Your task to perform on an android device: set default search engine in the chrome app Image 0: 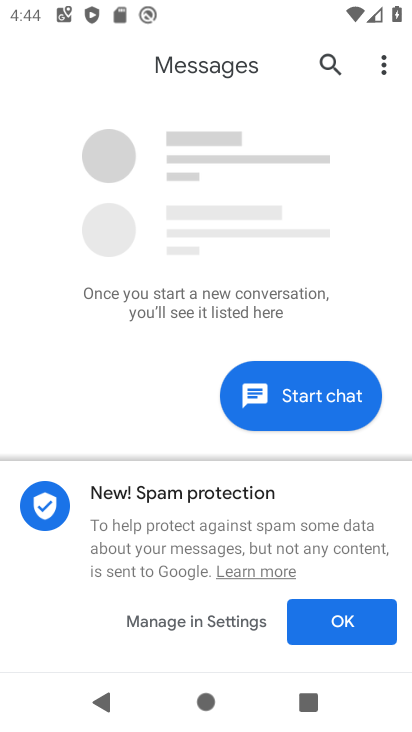
Step 0: press home button
Your task to perform on an android device: set default search engine in the chrome app Image 1: 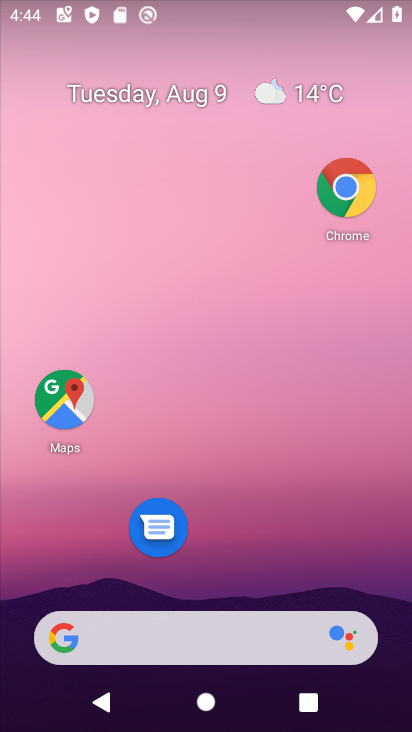
Step 1: click (348, 189)
Your task to perform on an android device: set default search engine in the chrome app Image 2: 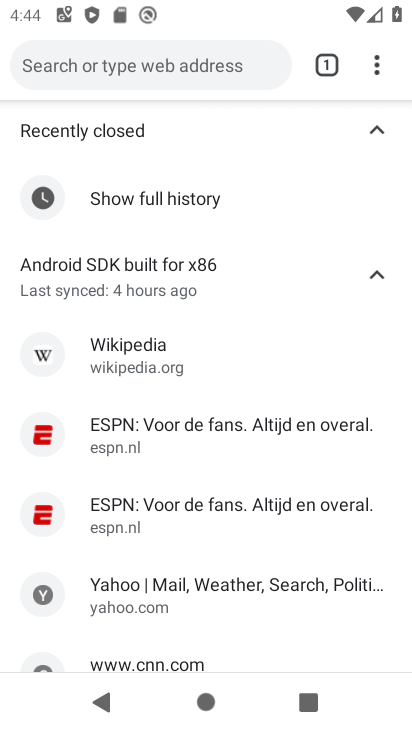
Step 2: click (392, 66)
Your task to perform on an android device: set default search engine in the chrome app Image 3: 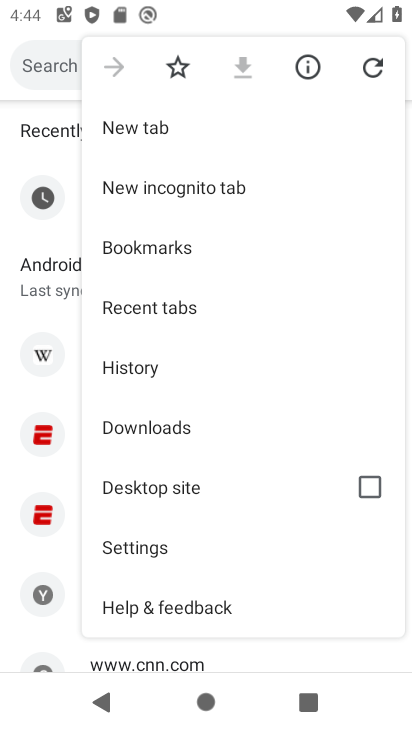
Step 3: click (164, 553)
Your task to perform on an android device: set default search engine in the chrome app Image 4: 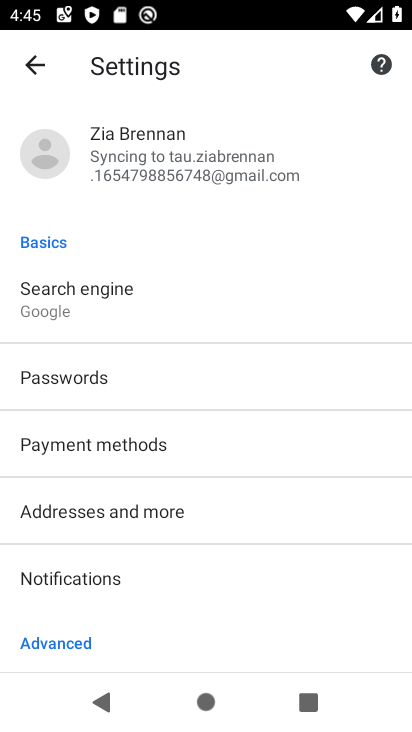
Step 4: click (178, 280)
Your task to perform on an android device: set default search engine in the chrome app Image 5: 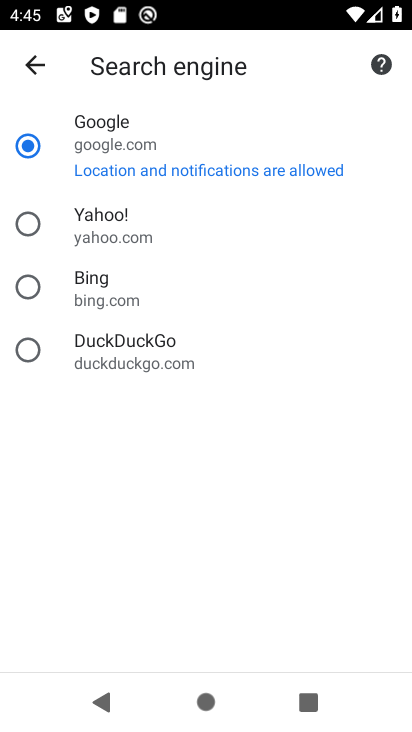
Step 5: click (168, 334)
Your task to perform on an android device: set default search engine in the chrome app Image 6: 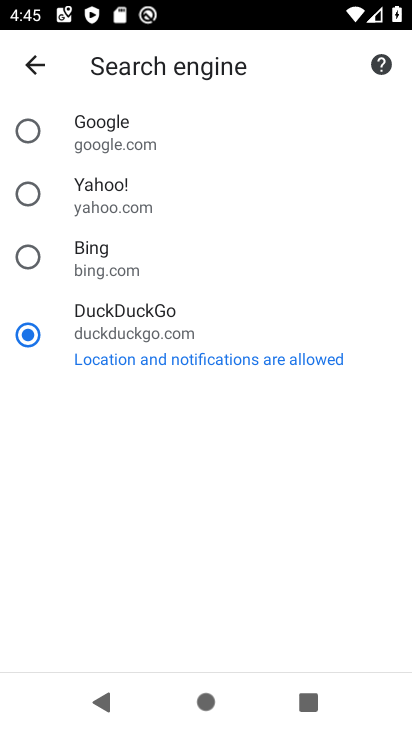
Step 6: task complete